Your task to perform on an android device: When is my next appointment? Image 0: 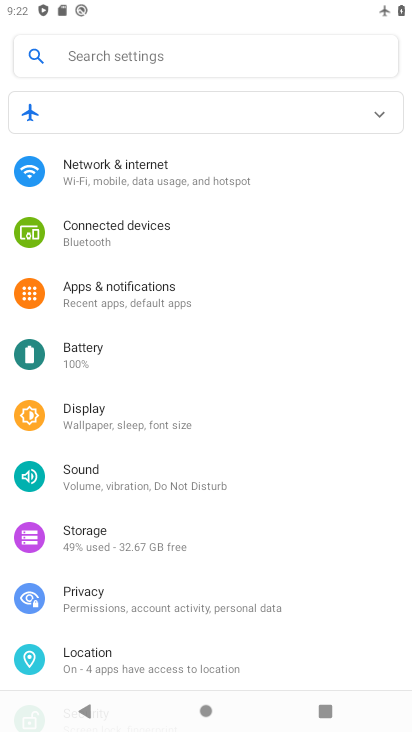
Step 0: press home button
Your task to perform on an android device: When is my next appointment? Image 1: 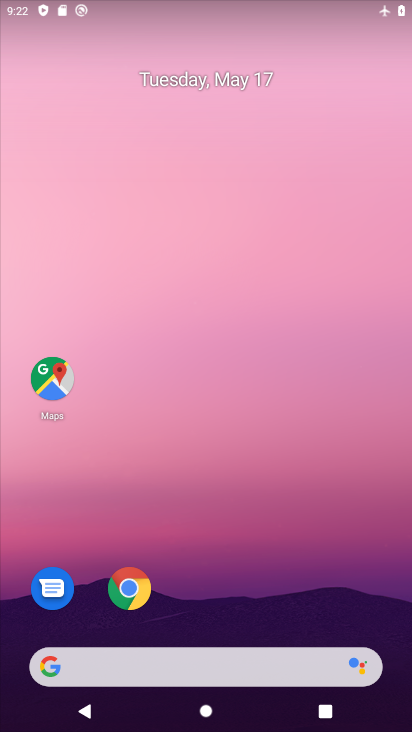
Step 1: drag from (231, 727) to (233, 172)
Your task to perform on an android device: When is my next appointment? Image 2: 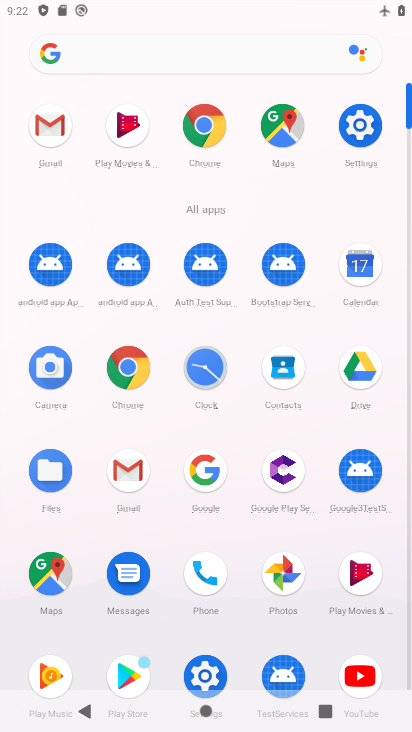
Step 2: click (358, 261)
Your task to perform on an android device: When is my next appointment? Image 3: 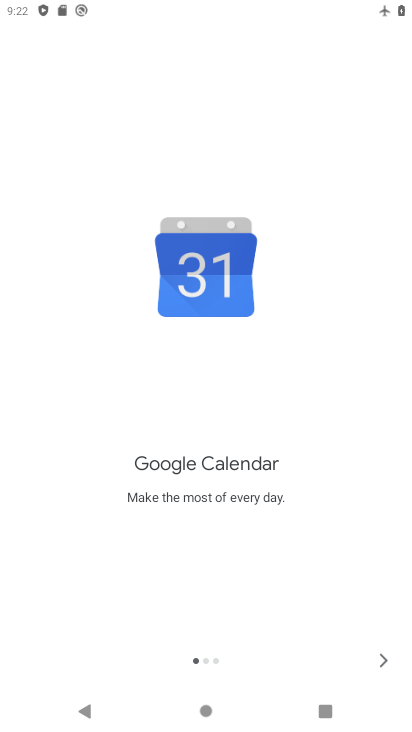
Step 3: click (384, 656)
Your task to perform on an android device: When is my next appointment? Image 4: 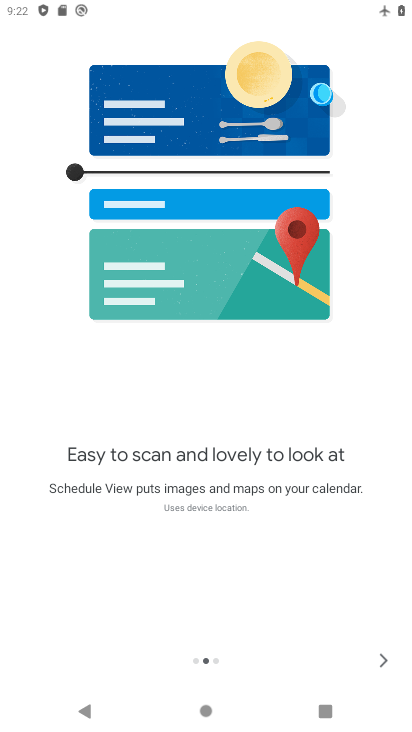
Step 4: click (386, 658)
Your task to perform on an android device: When is my next appointment? Image 5: 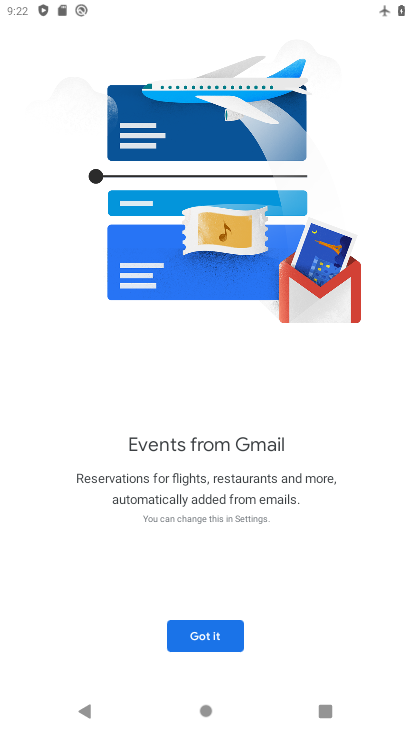
Step 5: click (214, 635)
Your task to perform on an android device: When is my next appointment? Image 6: 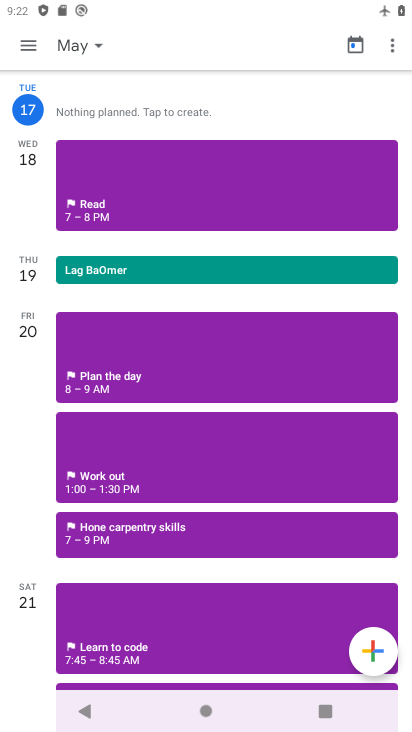
Step 6: click (70, 42)
Your task to perform on an android device: When is my next appointment? Image 7: 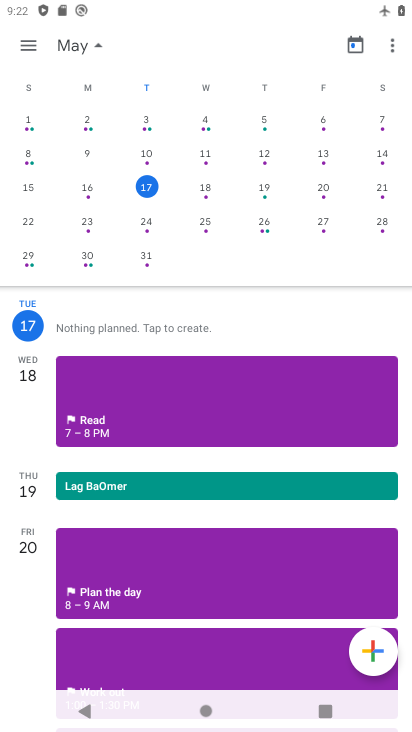
Step 7: click (207, 189)
Your task to perform on an android device: When is my next appointment? Image 8: 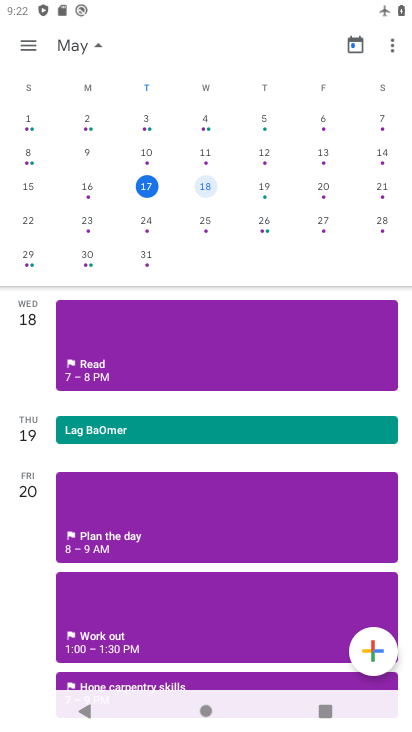
Step 8: task complete